Your task to perform on an android device: turn on airplane mode Image 0: 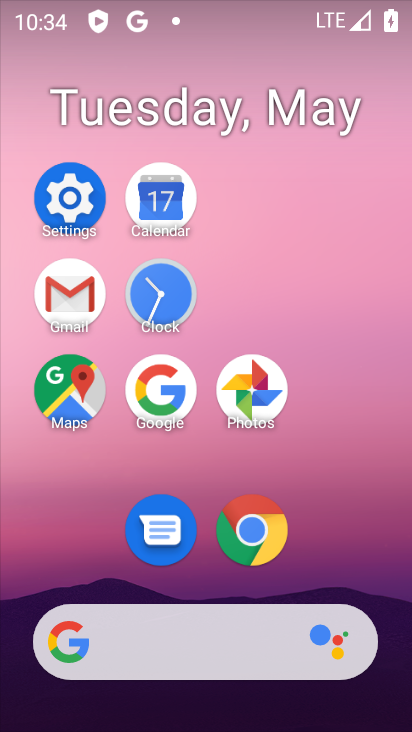
Step 0: click (73, 201)
Your task to perform on an android device: turn on airplane mode Image 1: 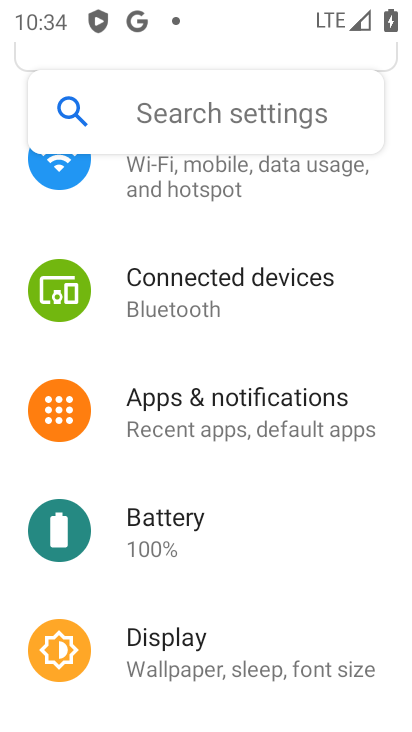
Step 1: click (301, 200)
Your task to perform on an android device: turn on airplane mode Image 2: 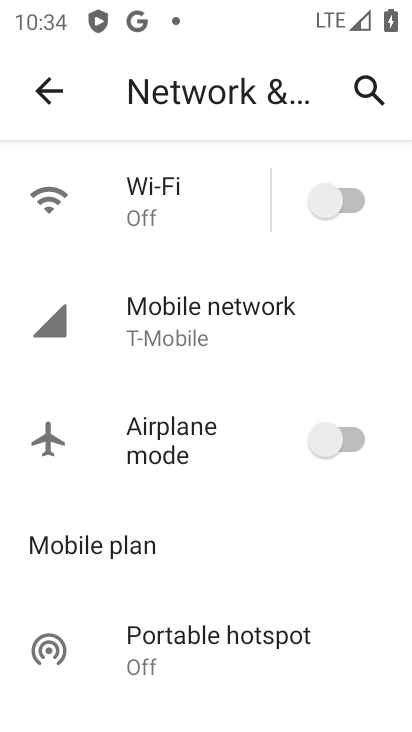
Step 2: click (319, 443)
Your task to perform on an android device: turn on airplane mode Image 3: 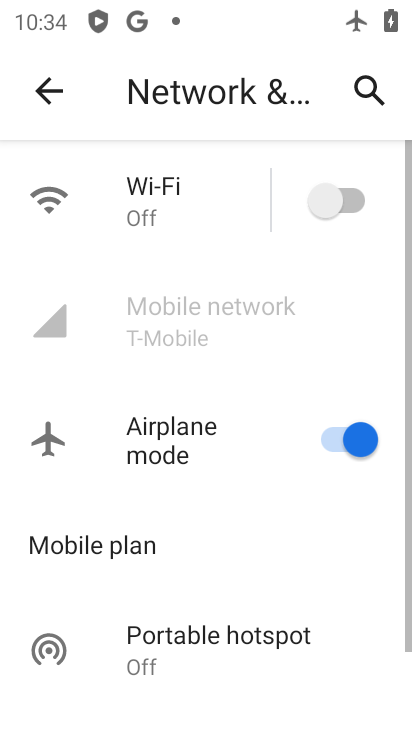
Step 3: task complete